Your task to perform on an android device: clear all cookies in the chrome app Image 0: 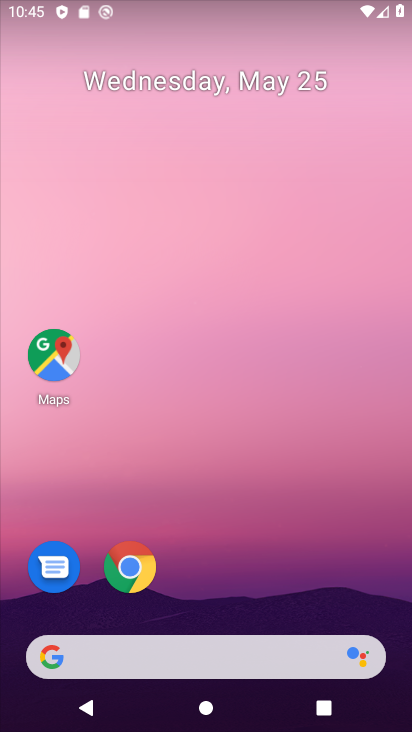
Step 0: click (140, 562)
Your task to perform on an android device: clear all cookies in the chrome app Image 1: 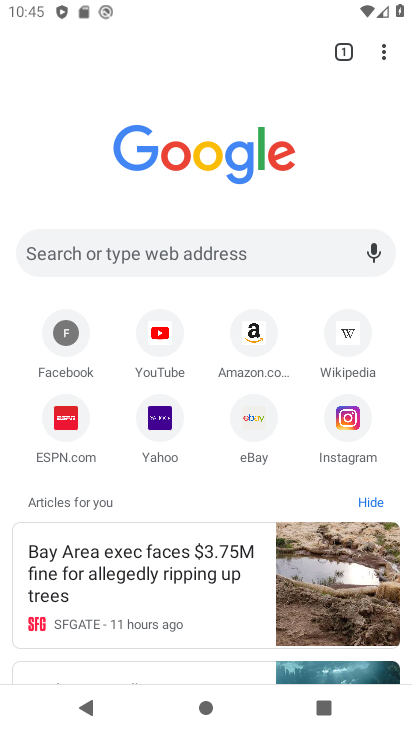
Step 1: click (384, 54)
Your task to perform on an android device: clear all cookies in the chrome app Image 2: 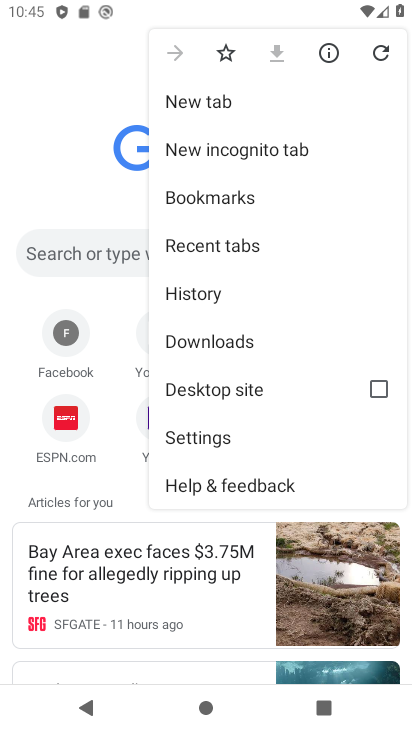
Step 2: click (229, 436)
Your task to perform on an android device: clear all cookies in the chrome app Image 3: 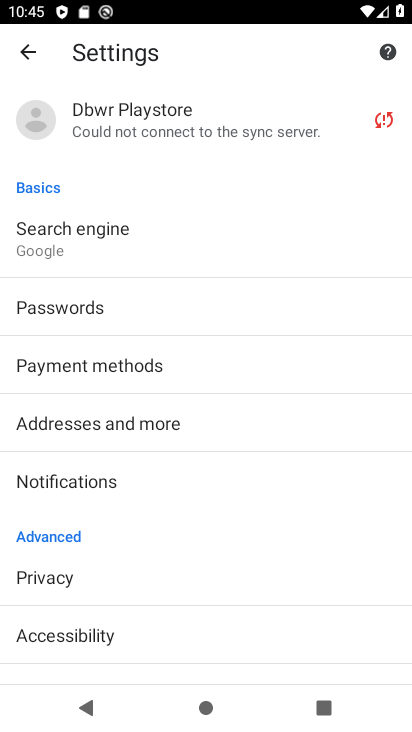
Step 3: drag from (126, 670) to (100, 215)
Your task to perform on an android device: clear all cookies in the chrome app Image 4: 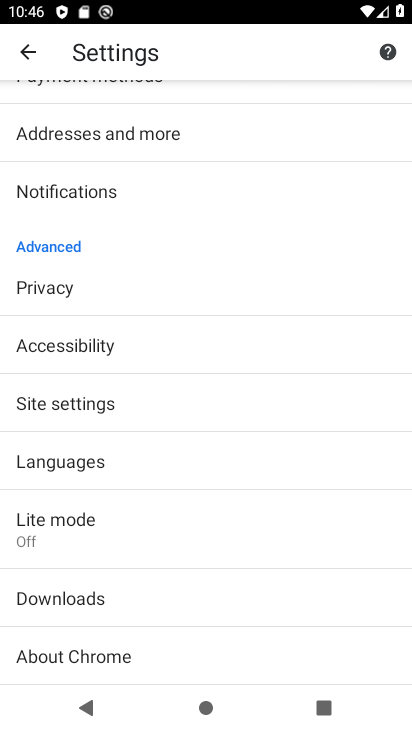
Step 4: click (43, 407)
Your task to perform on an android device: clear all cookies in the chrome app Image 5: 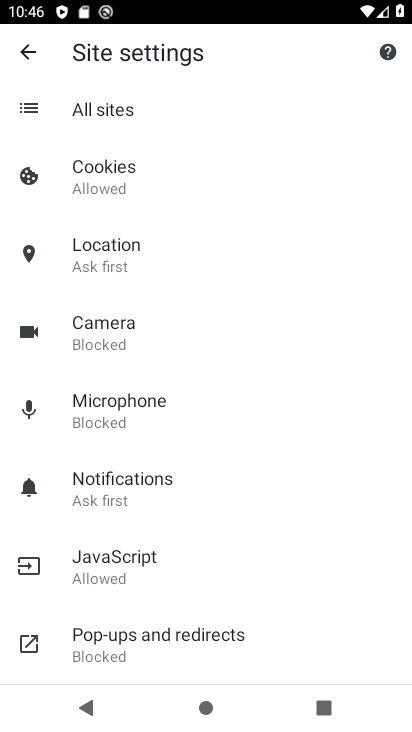
Step 5: click (126, 178)
Your task to perform on an android device: clear all cookies in the chrome app Image 6: 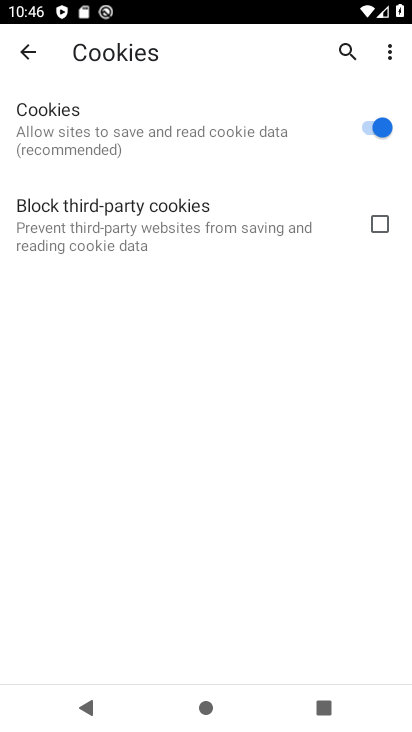
Step 6: task complete